Your task to perform on an android device: Open Chrome and go to settings Image 0: 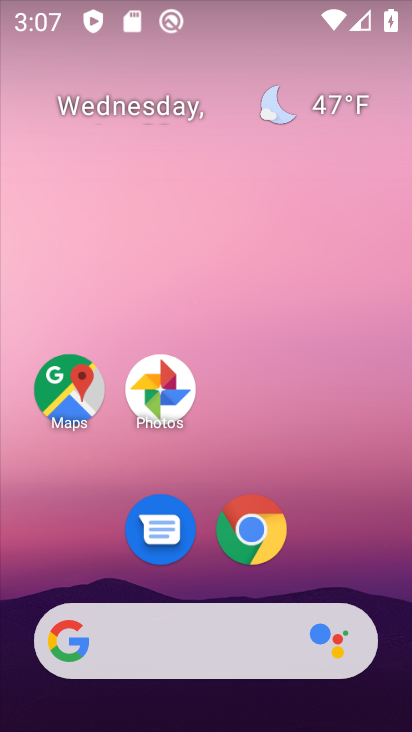
Step 0: click (246, 530)
Your task to perform on an android device: Open Chrome and go to settings Image 1: 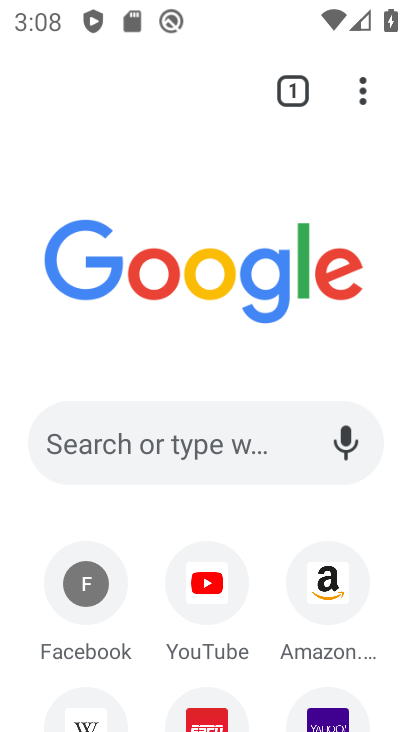
Step 1: click (360, 87)
Your task to perform on an android device: Open Chrome and go to settings Image 2: 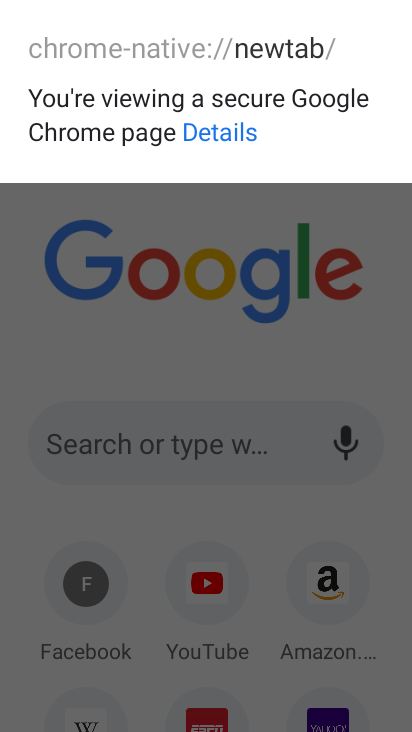
Step 2: click (341, 201)
Your task to perform on an android device: Open Chrome and go to settings Image 3: 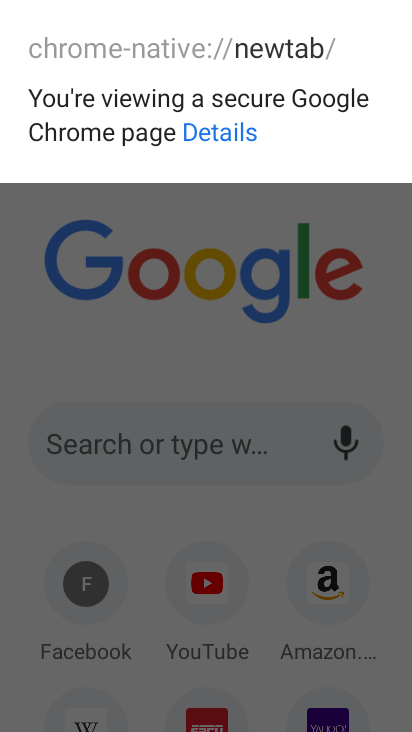
Step 3: press back button
Your task to perform on an android device: Open Chrome and go to settings Image 4: 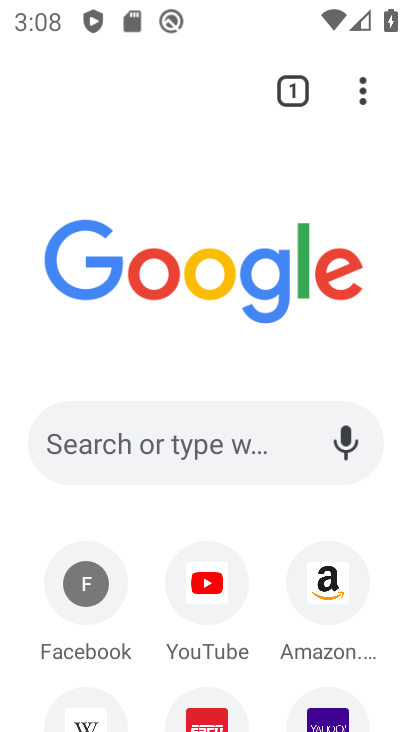
Step 4: click (364, 81)
Your task to perform on an android device: Open Chrome and go to settings Image 5: 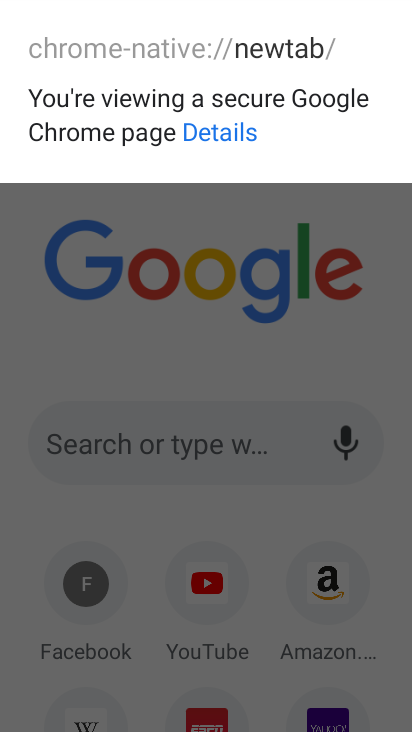
Step 5: click (206, 367)
Your task to perform on an android device: Open Chrome and go to settings Image 6: 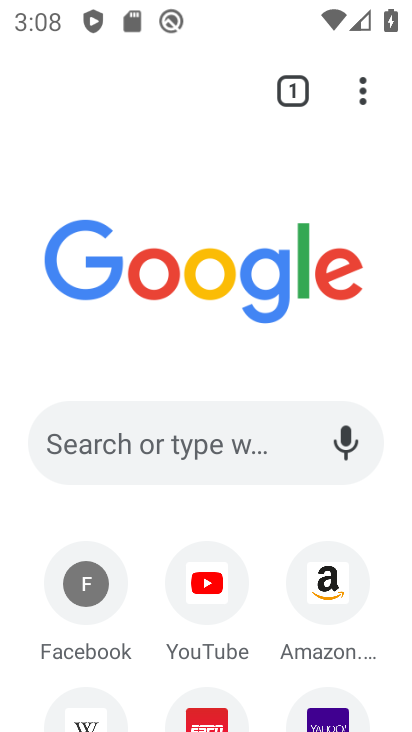
Step 6: click (364, 92)
Your task to perform on an android device: Open Chrome and go to settings Image 7: 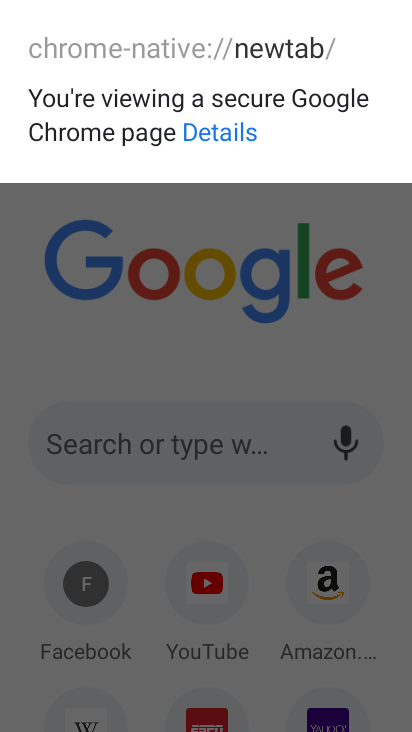
Step 7: click (331, 224)
Your task to perform on an android device: Open Chrome and go to settings Image 8: 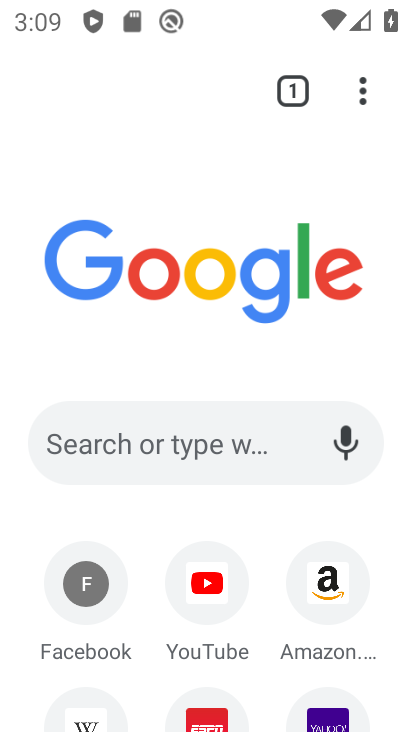
Step 8: click (361, 80)
Your task to perform on an android device: Open Chrome and go to settings Image 9: 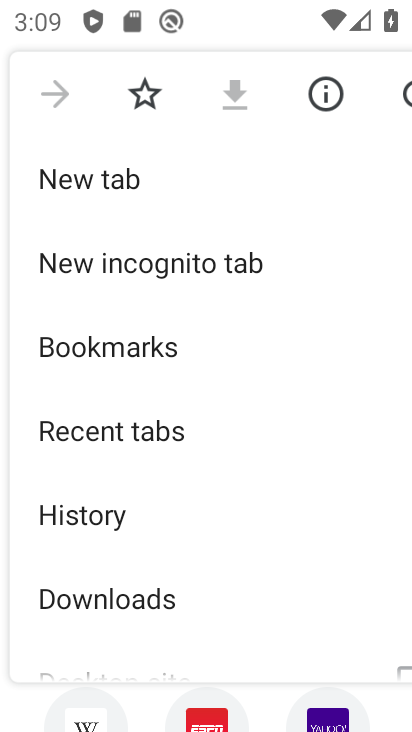
Step 9: drag from (114, 581) to (278, 221)
Your task to perform on an android device: Open Chrome and go to settings Image 10: 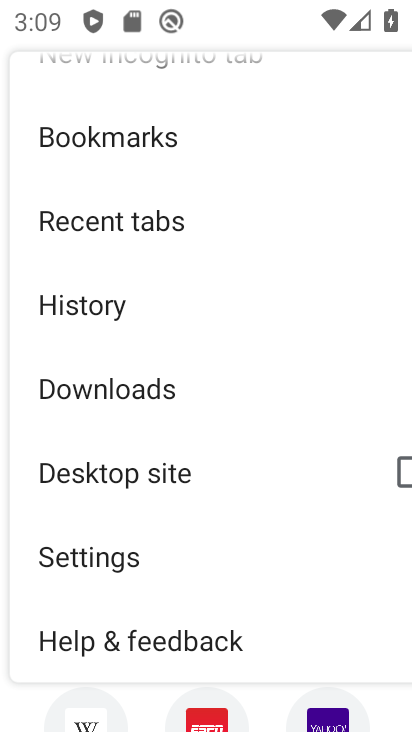
Step 10: click (105, 549)
Your task to perform on an android device: Open Chrome and go to settings Image 11: 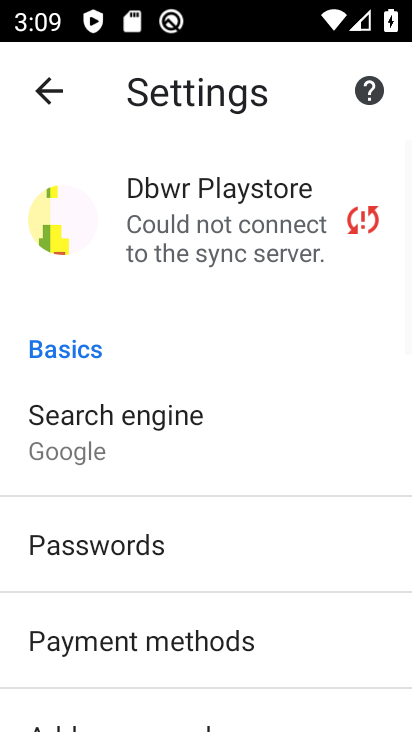
Step 11: task complete